Your task to perform on an android device: Open Google Image 0: 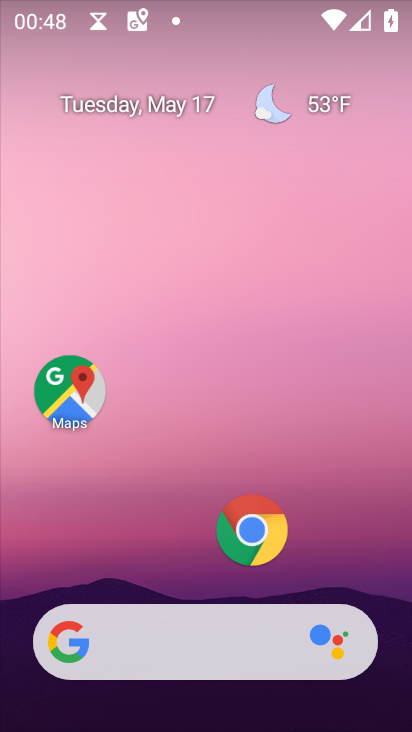
Step 0: click (225, 639)
Your task to perform on an android device: Open Google Image 1: 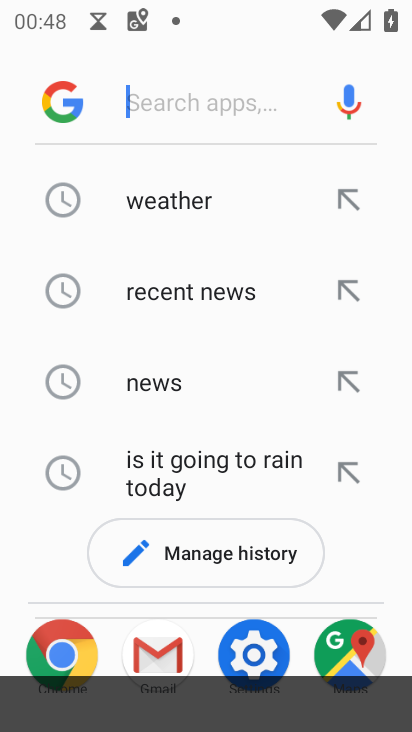
Step 1: click (226, 639)
Your task to perform on an android device: Open Google Image 2: 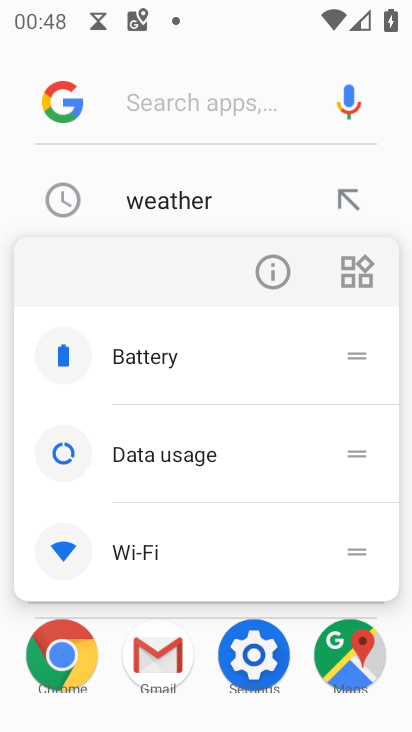
Step 2: task complete